Your task to perform on an android device: open device folders in google photos Image 0: 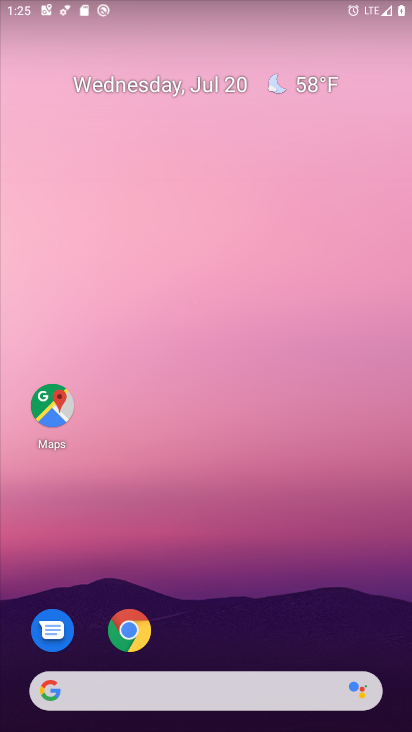
Step 0: drag from (265, 652) to (213, 108)
Your task to perform on an android device: open device folders in google photos Image 1: 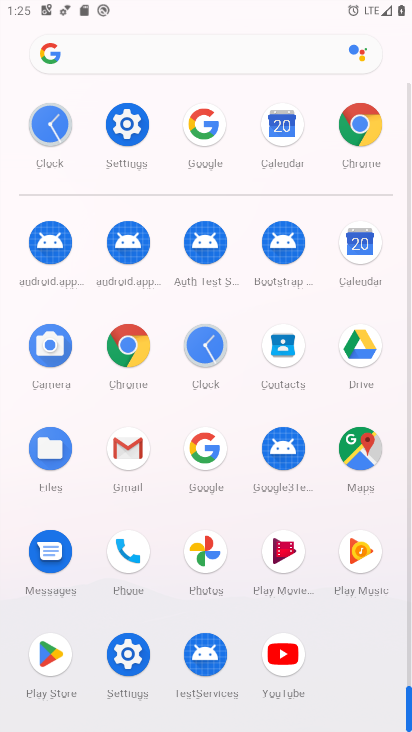
Step 1: click (210, 566)
Your task to perform on an android device: open device folders in google photos Image 2: 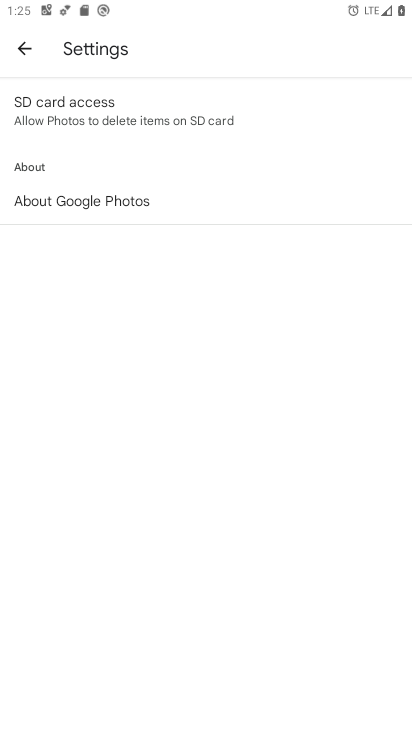
Step 2: click (21, 60)
Your task to perform on an android device: open device folders in google photos Image 3: 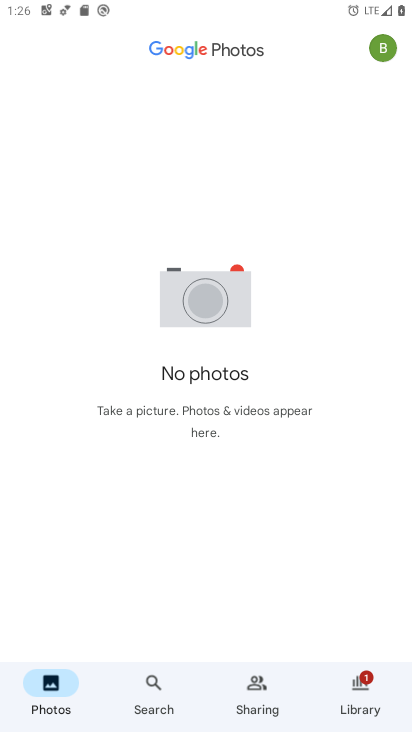
Step 3: click (370, 45)
Your task to perform on an android device: open device folders in google photos Image 4: 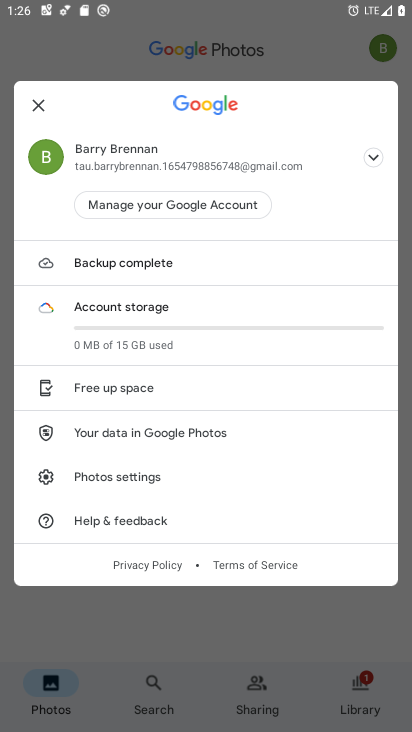
Step 4: task complete